Your task to perform on an android device: Go to Maps Image 0: 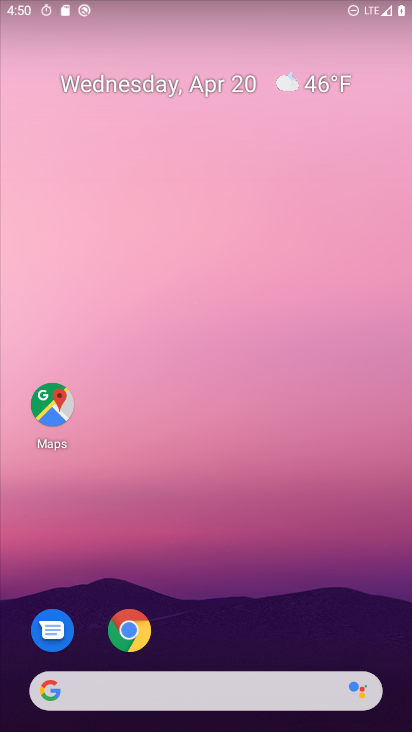
Step 0: drag from (298, 508) to (285, 32)
Your task to perform on an android device: Go to Maps Image 1: 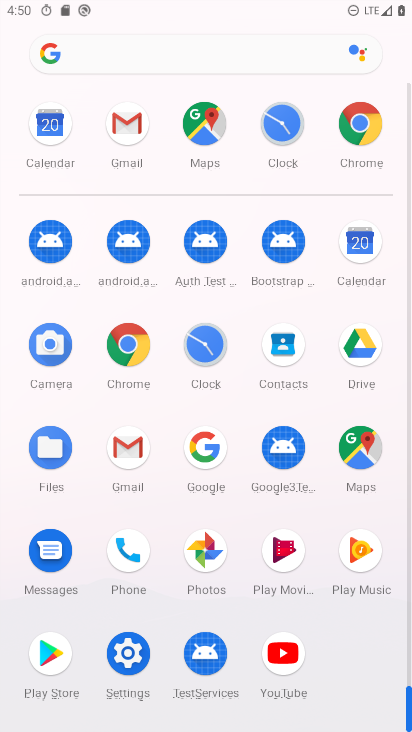
Step 1: click (360, 449)
Your task to perform on an android device: Go to Maps Image 2: 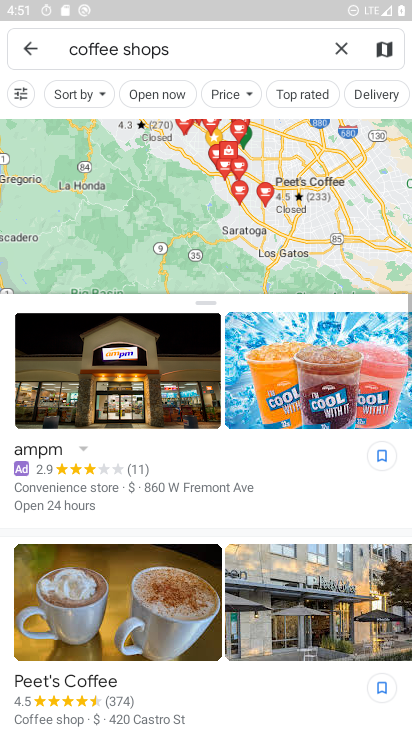
Step 2: task complete